Your task to perform on an android device: Go to Android settings Image 0: 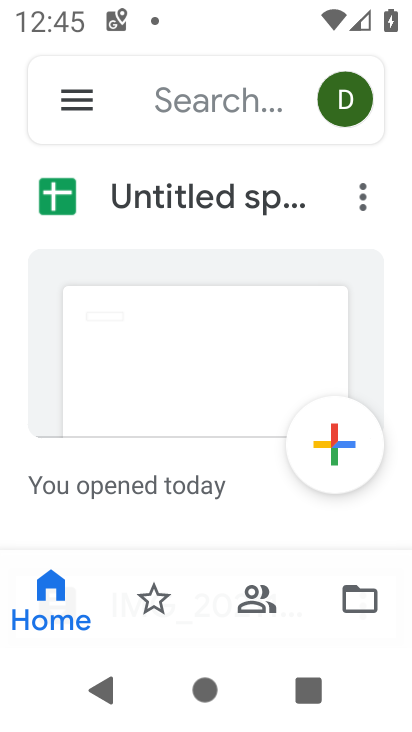
Step 0: press home button
Your task to perform on an android device: Go to Android settings Image 1: 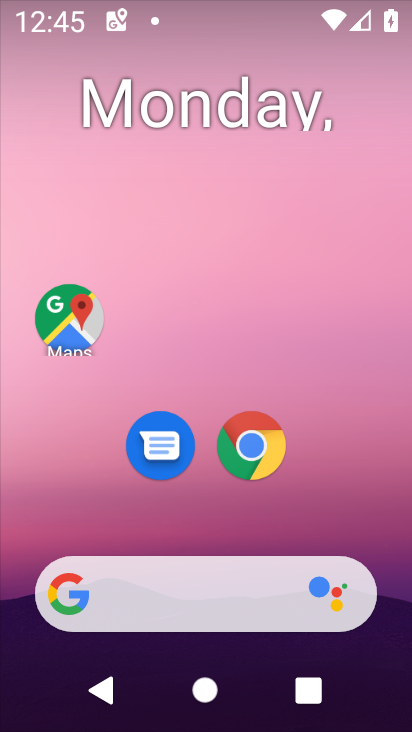
Step 1: drag from (332, 518) to (263, 3)
Your task to perform on an android device: Go to Android settings Image 2: 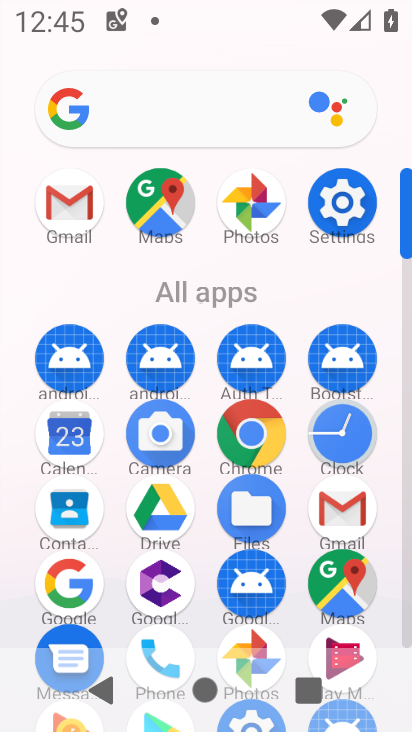
Step 2: click (343, 204)
Your task to perform on an android device: Go to Android settings Image 3: 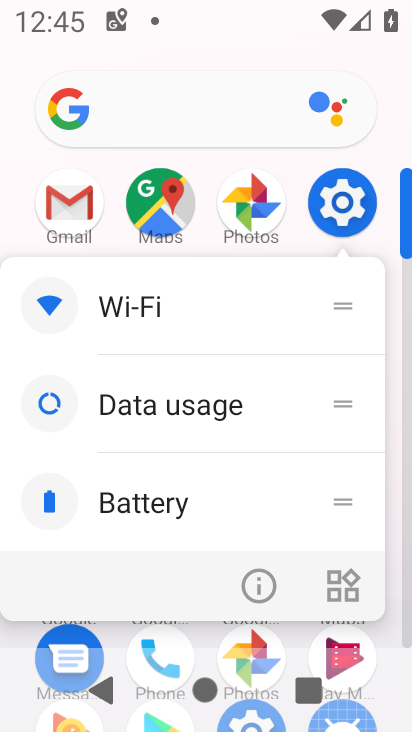
Step 3: click (342, 199)
Your task to perform on an android device: Go to Android settings Image 4: 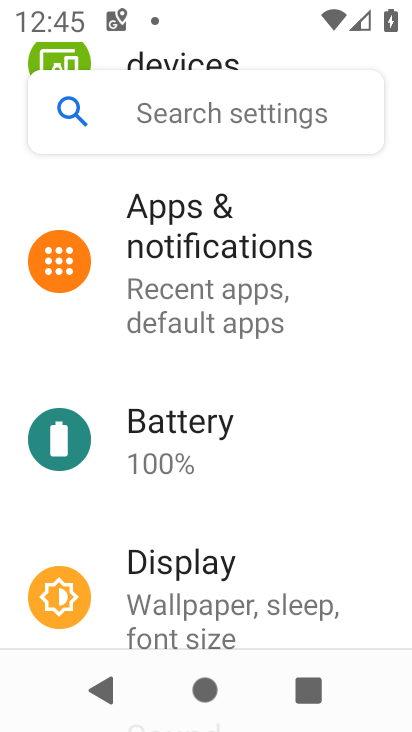
Step 4: task complete